Your task to perform on an android device: toggle wifi Image 0: 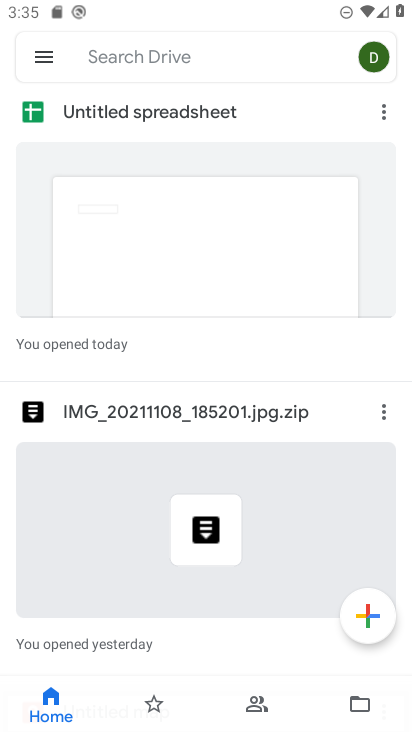
Step 0: press home button
Your task to perform on an android device: toggle wifi Image 1: 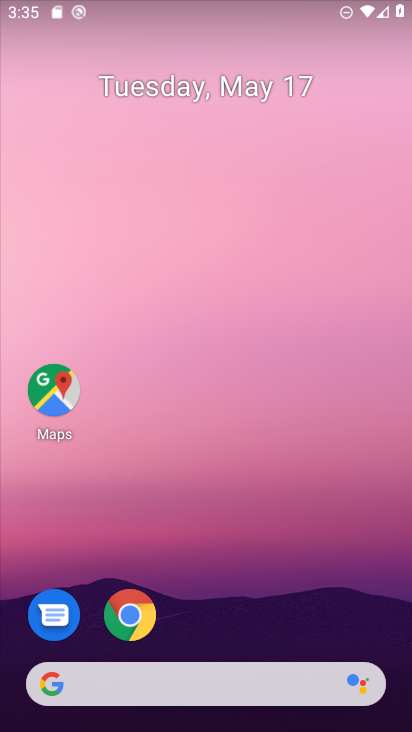
Step 1: drag from (245, 615) to (241, 314)
Your task to perform on an android device: toggle wifi Image 2: 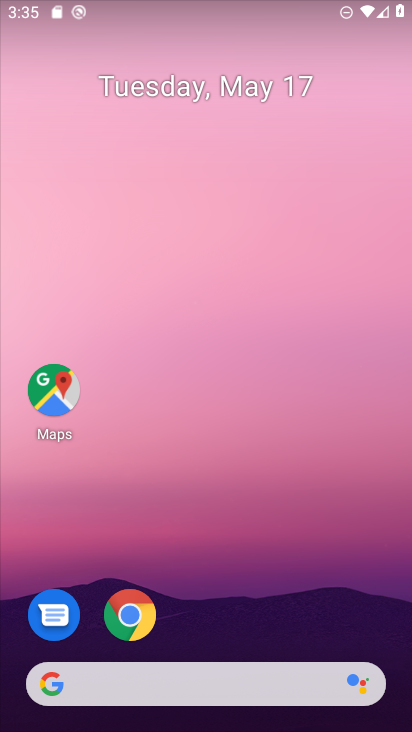
Step 2: drag from (202, 726) to (205, 201)
Your task to perform on an android device: toggle wifi Image 3: 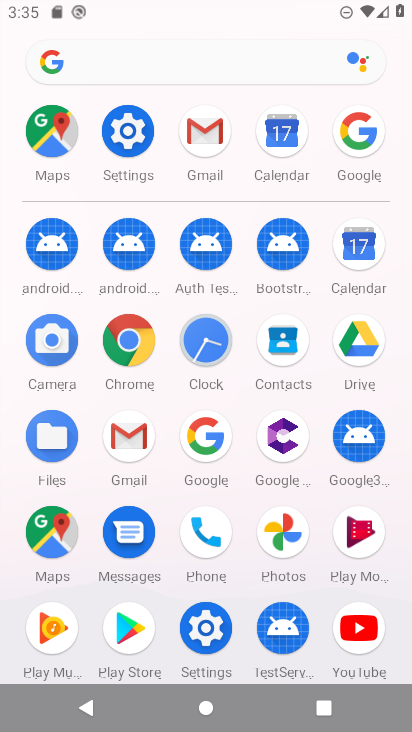
Step 3: click (127, 126)
Your task to perform on an android device: toggle wifi Image 4: 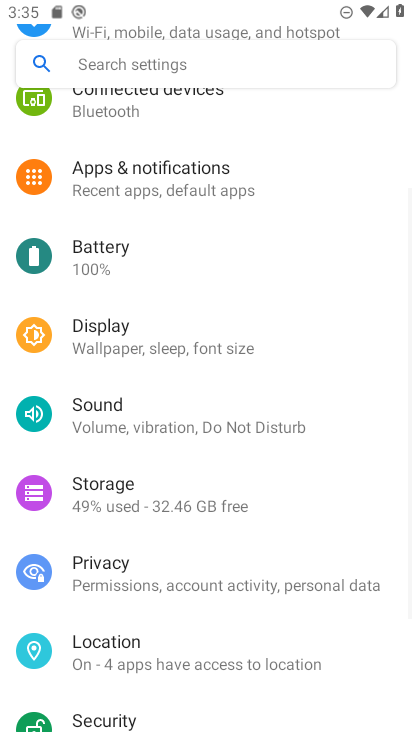
Step 4: drag from (184, 168) to (193, 620)
Your task to perform on an android device: toggle wifi Image 5: 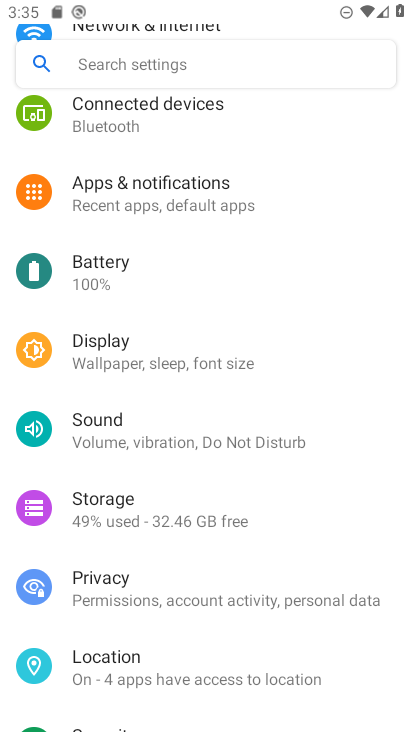
Step 5: drag from (179, 134) to (173, 520)
Your task to perform on an android device: toggle wifi Image 6: 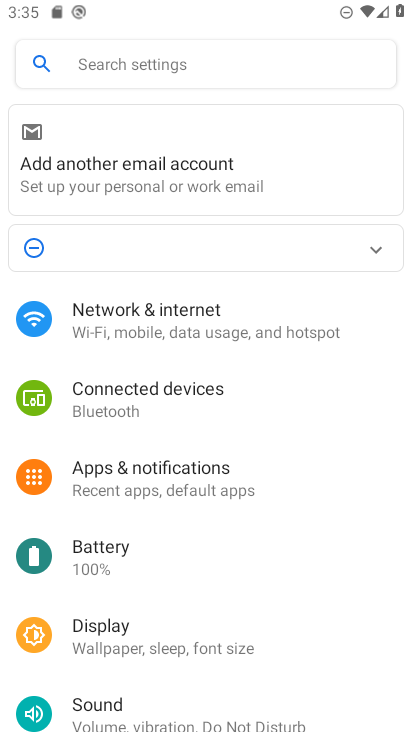
Step 6: click (134, 316)
Your task to perform on an android device: toggle wifi Image 7: 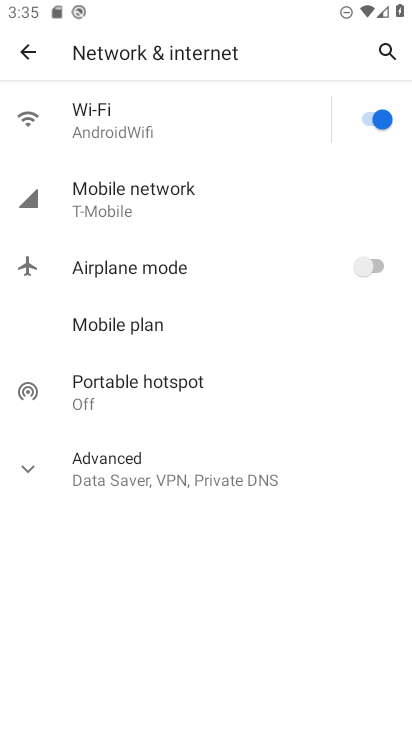
Step 7: click (367, 116)
Your task to perform on an android device: toggle wifi Image 8: 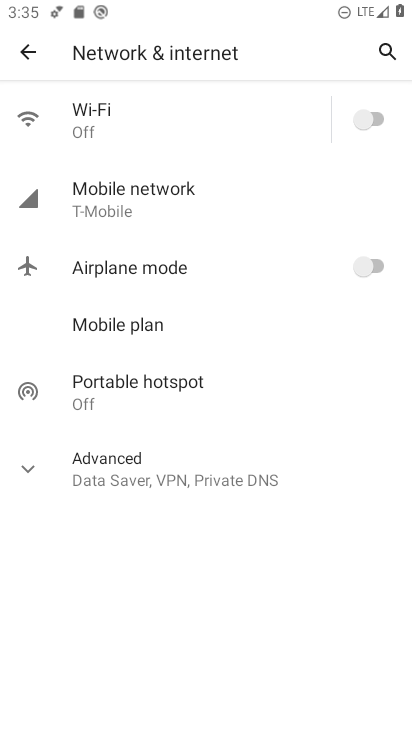
Step 8: task complete